Your task to perform on an android device: turn on location history Image 0: 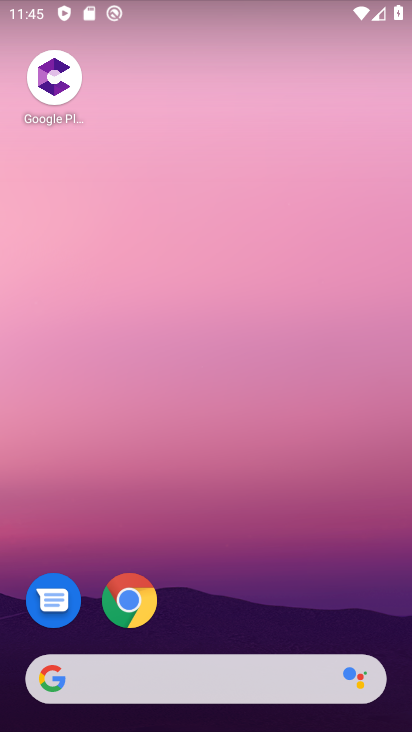
Step 0: press home button
Your task to perform on an android device: turn on location history Image 1: 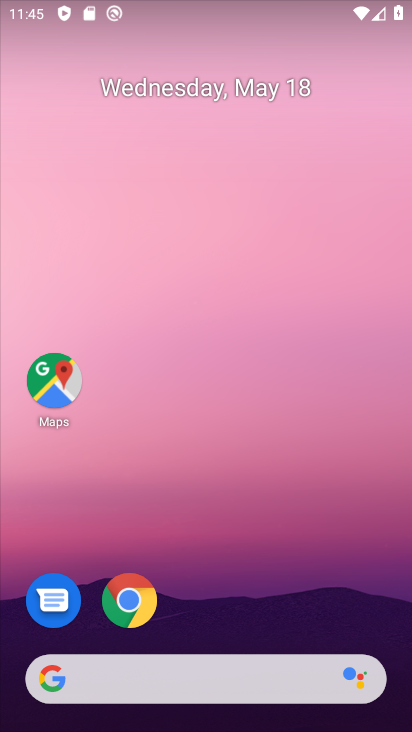
Step 1: drag from (230, 397) to (178, 31)
Your task to perform on an android device: turn on location history Image 2: 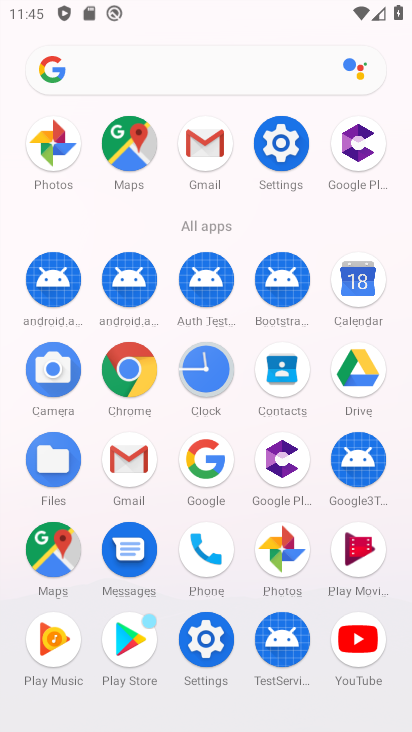
Step 2: click (288, 157)
Your task to perform on an android device: turn on location history Image 3: 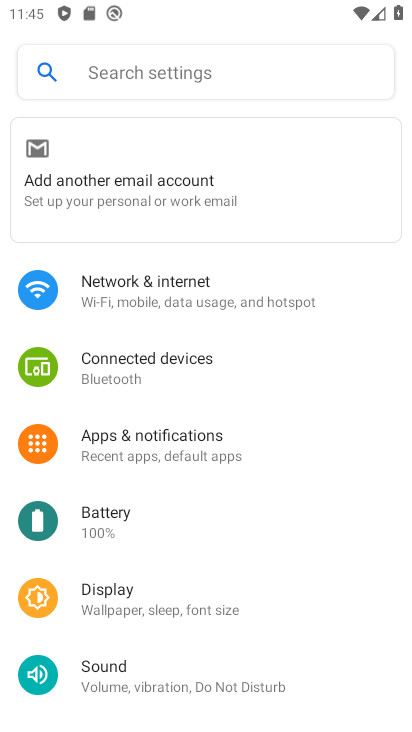
Step 3: drag from (209, 618) to (217, 117)
Your task to perform on an android device: turn on location history Image 4: 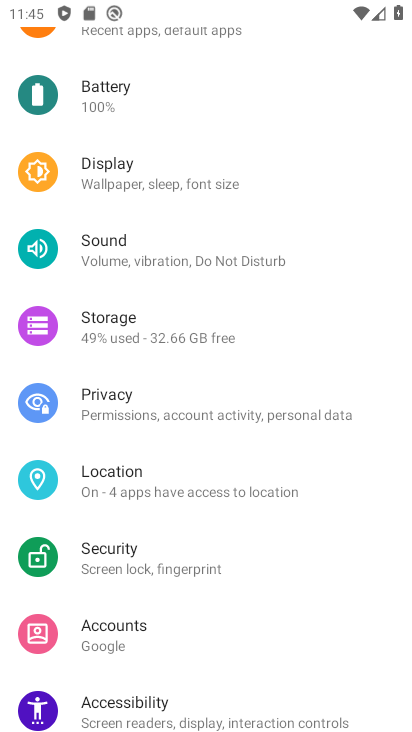
Step 4: click (212, 481)
Your task to perform on an android device: turn on location history Image 5: 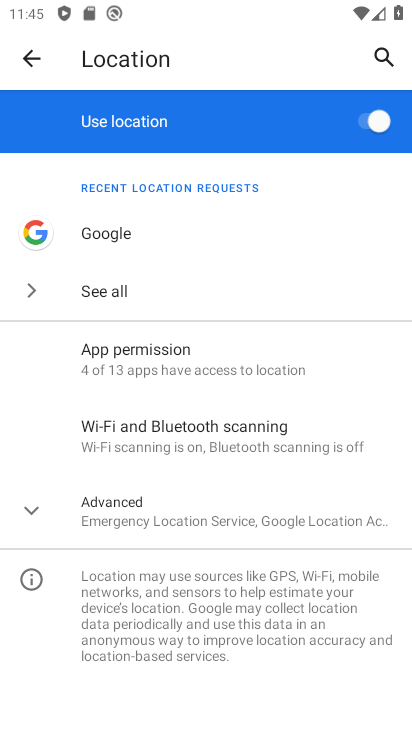
Step 5: task complete